Your task to perform on an android device: Open Google Image 0: 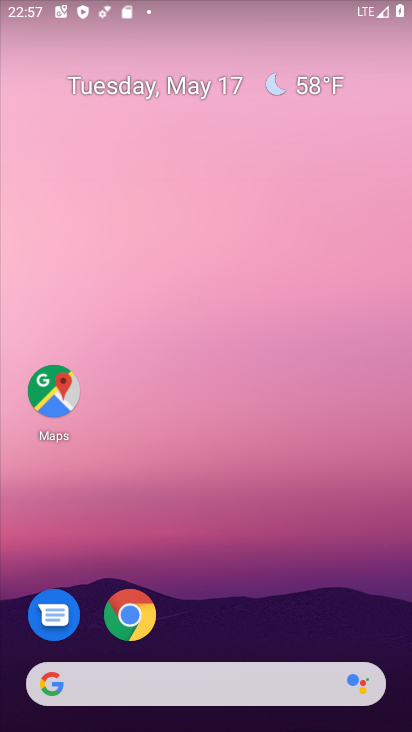
Step 0: drag from (227, 633) to (232, 186)
Your task to perform on an android device: Open Google Image 1: 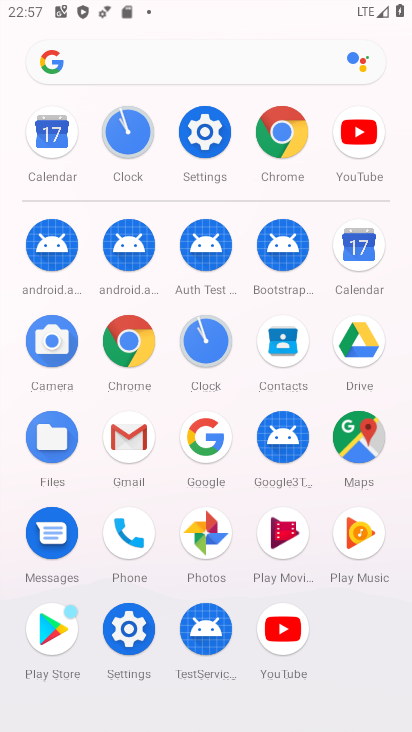
Step 1: click (216, 444)
Your task to perform on an android device: Open Google Image 2: 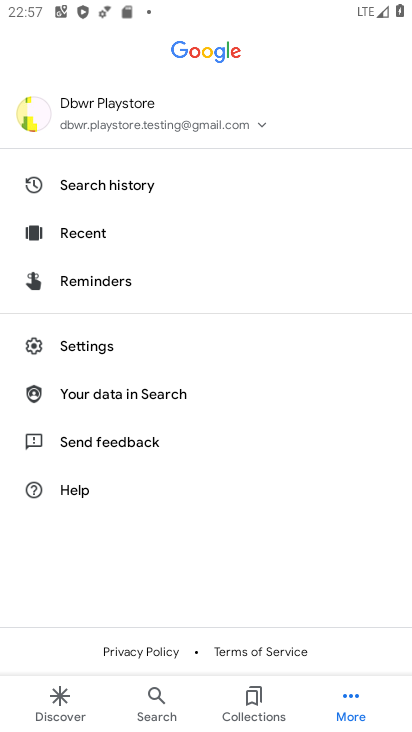
Step 2: task complete